Your task to perform on an android device: turn off location Image 0: 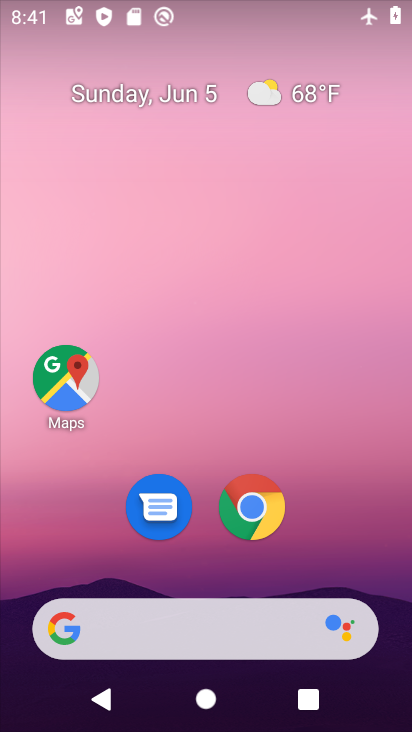
Step 0: drag from (184, 576) to (210, 74)
Your task to perform on an android device: turn off location Image 1: 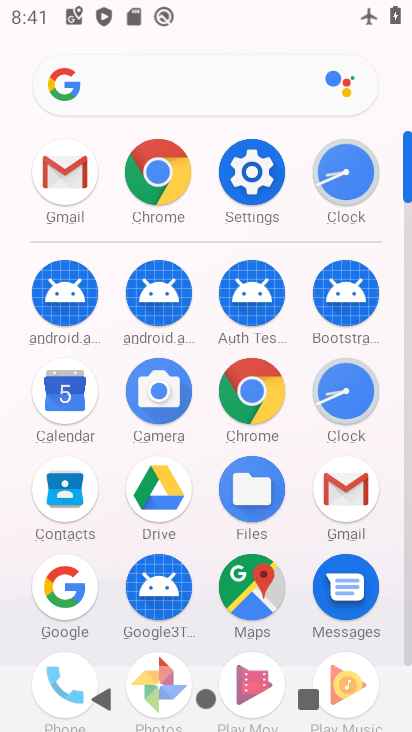
Step 1: click (252, 192)
Your task to perform on an android device: turn off location Image 2: 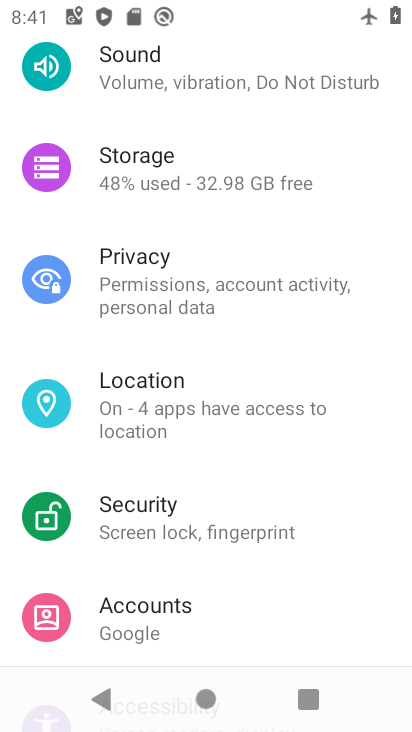
Step 2: click (171, 413)
Your task to perform on an android device: turn off location Image 3: 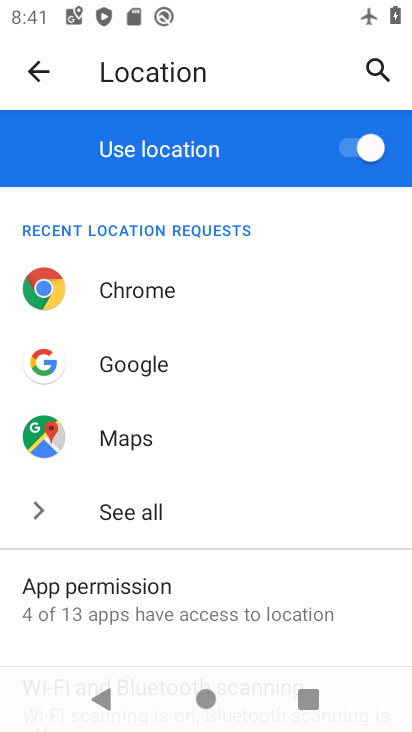
Step 3: click (325, 148)
Your task to perform on an android device: turn off location Image 4: 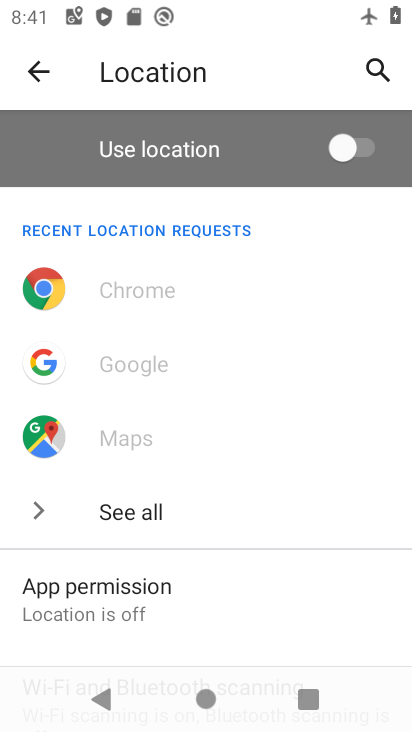
Step 4: task complete